Your task to perform on an android device: open app "Upside-Cash back on gas & food" Image 0: 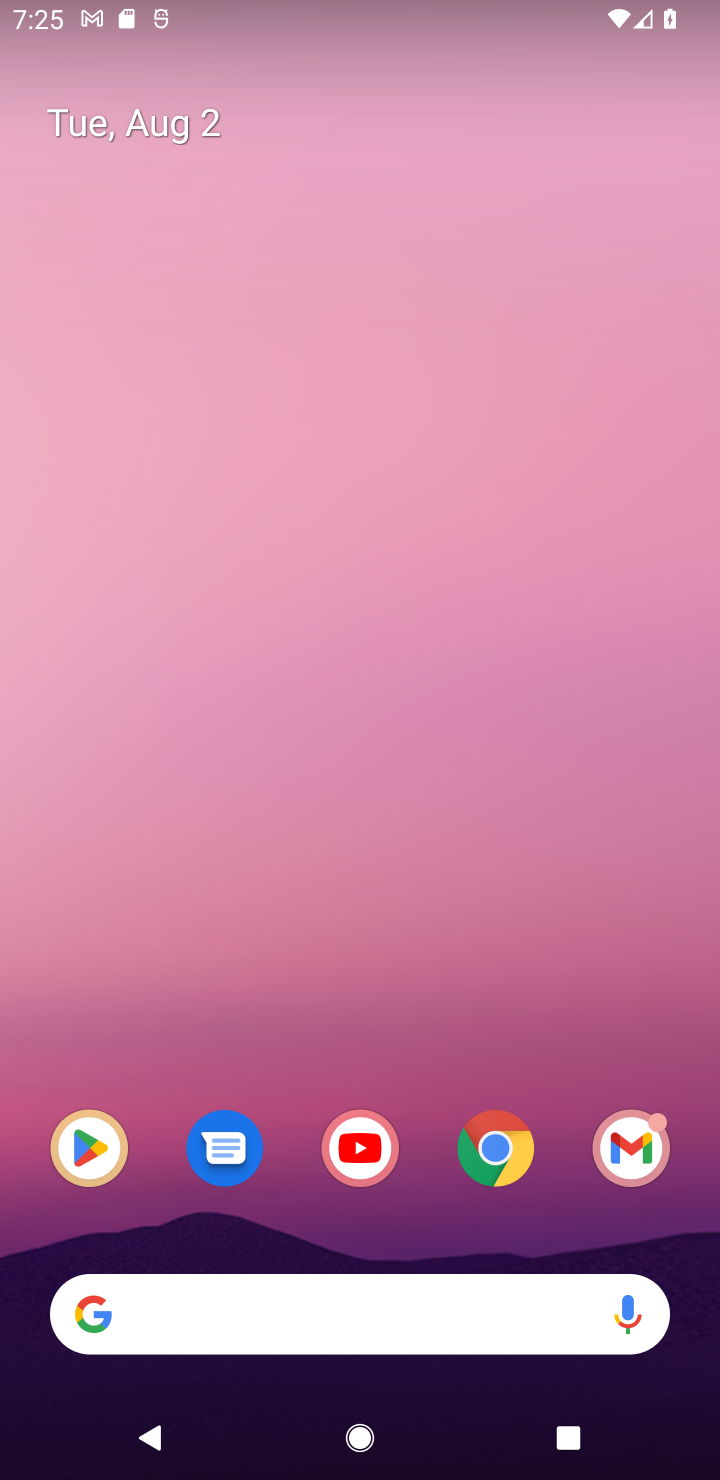
Step 0: drag from (552, 997) to (302, 305)
Your task to perform on an android device: open app "Upside-Cash back on gas & food" Image 1: 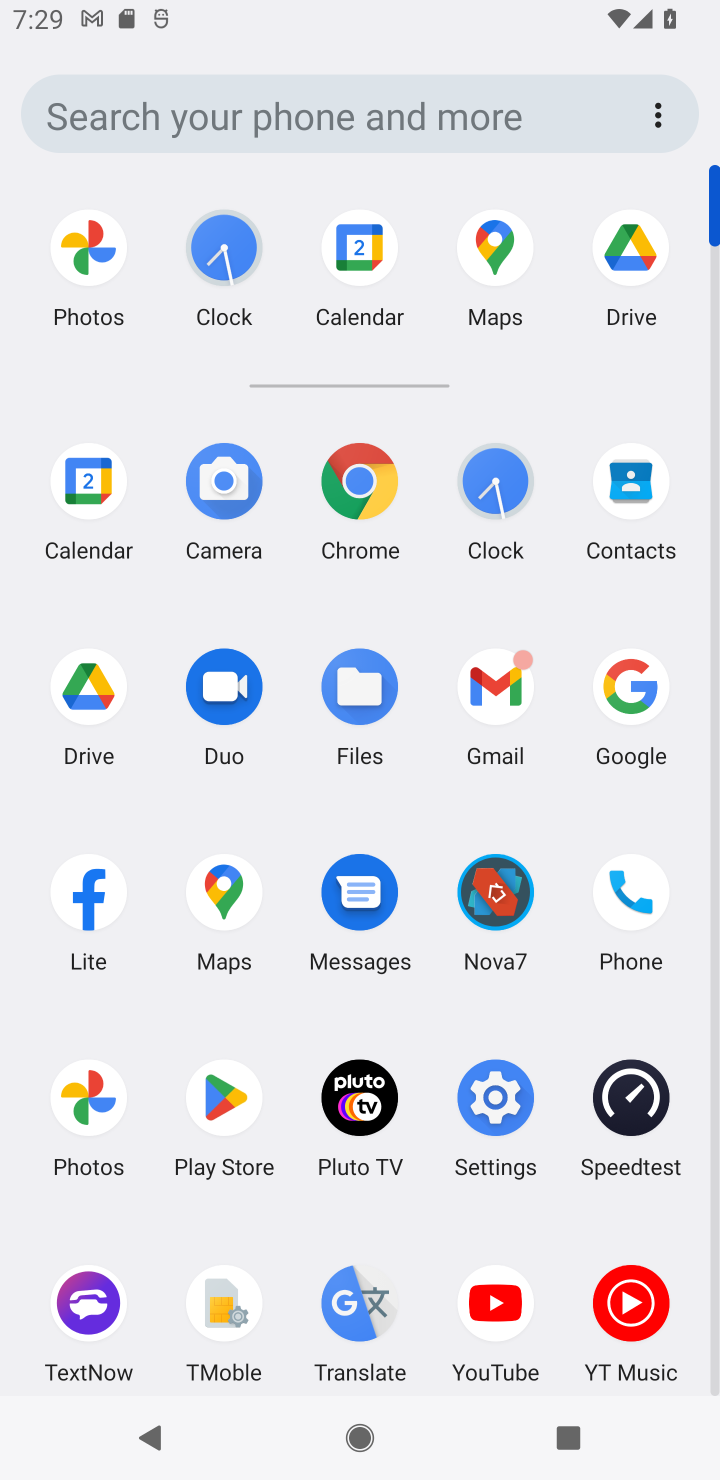
Step 1: click (210, 1119)
Your task to perform on an android device: open app "Upside-Cash back on gas & food" Image 2: 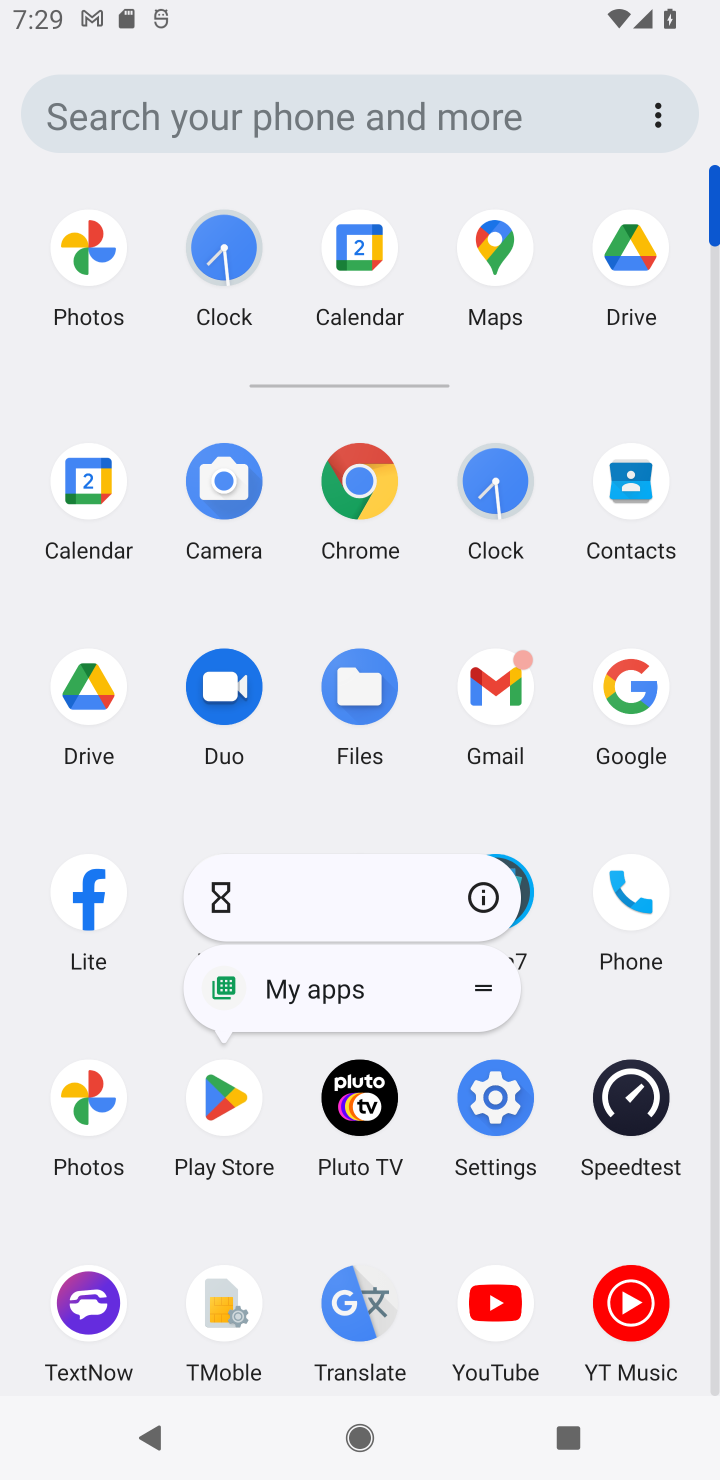
Step 2: click (222, 1088)
Your task to perform on an android device: open app "Upside-Cash back on gas & food" Image 3: 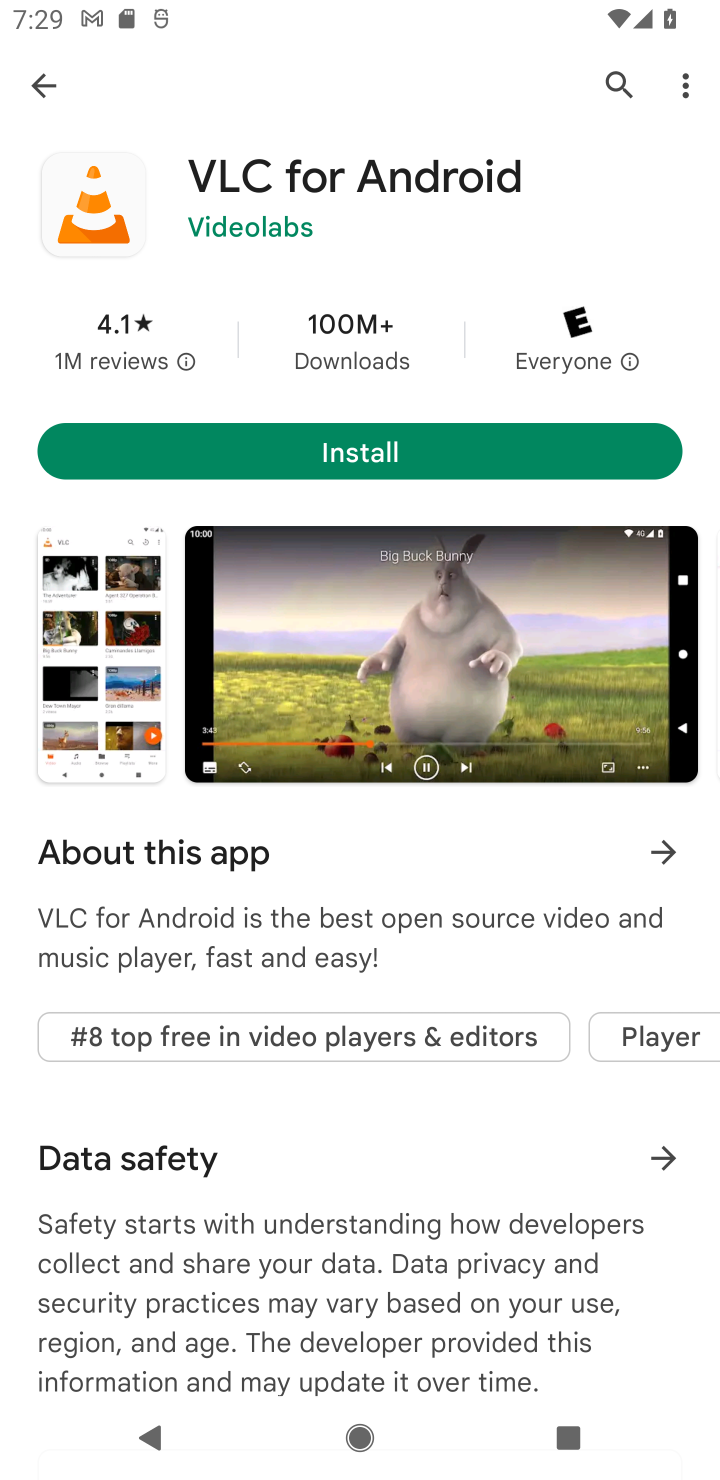
Step 3: press back button
Your task to perform on an android device: open app "Upside-Cash back on gas & food" Image 4: 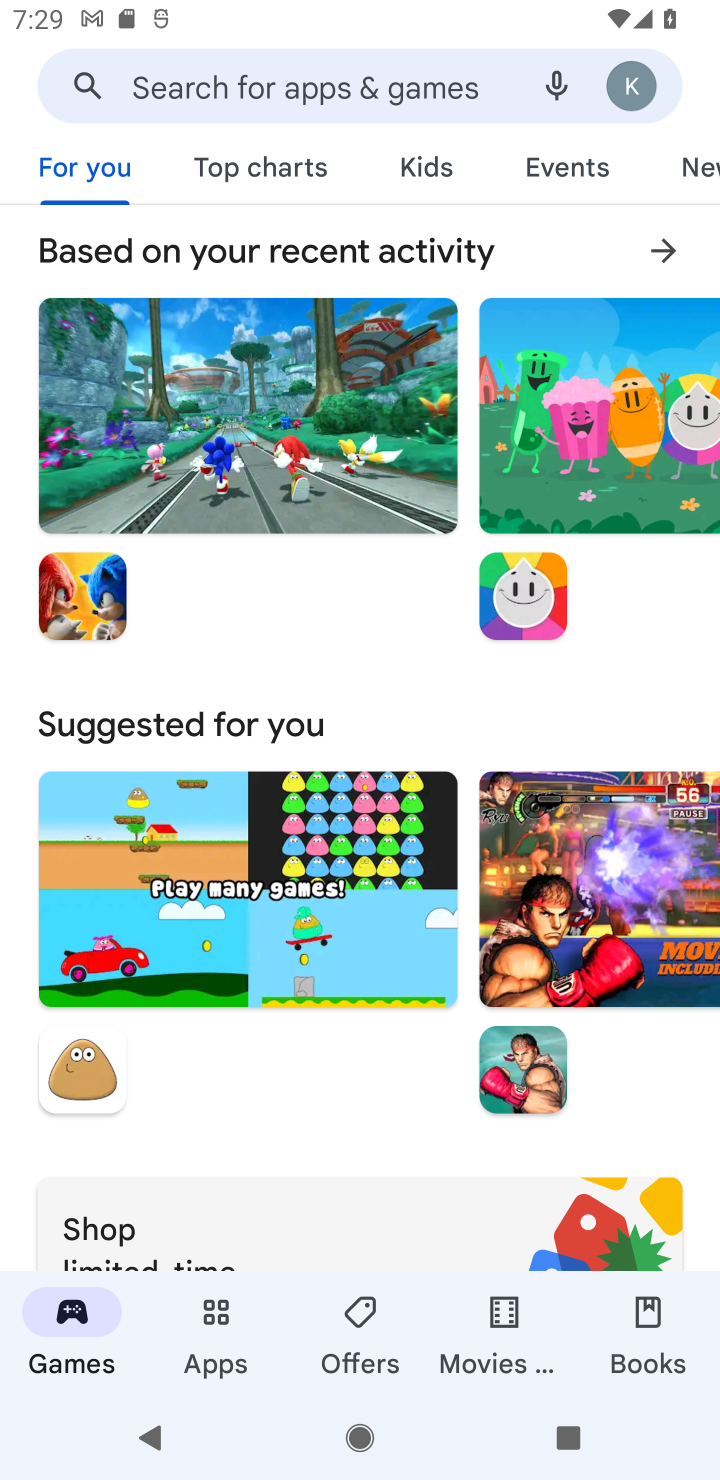
Step 4: click (201, 79)
Your task to perform on an android device: open app "Upside-Cash back on gas & food" Image 5: 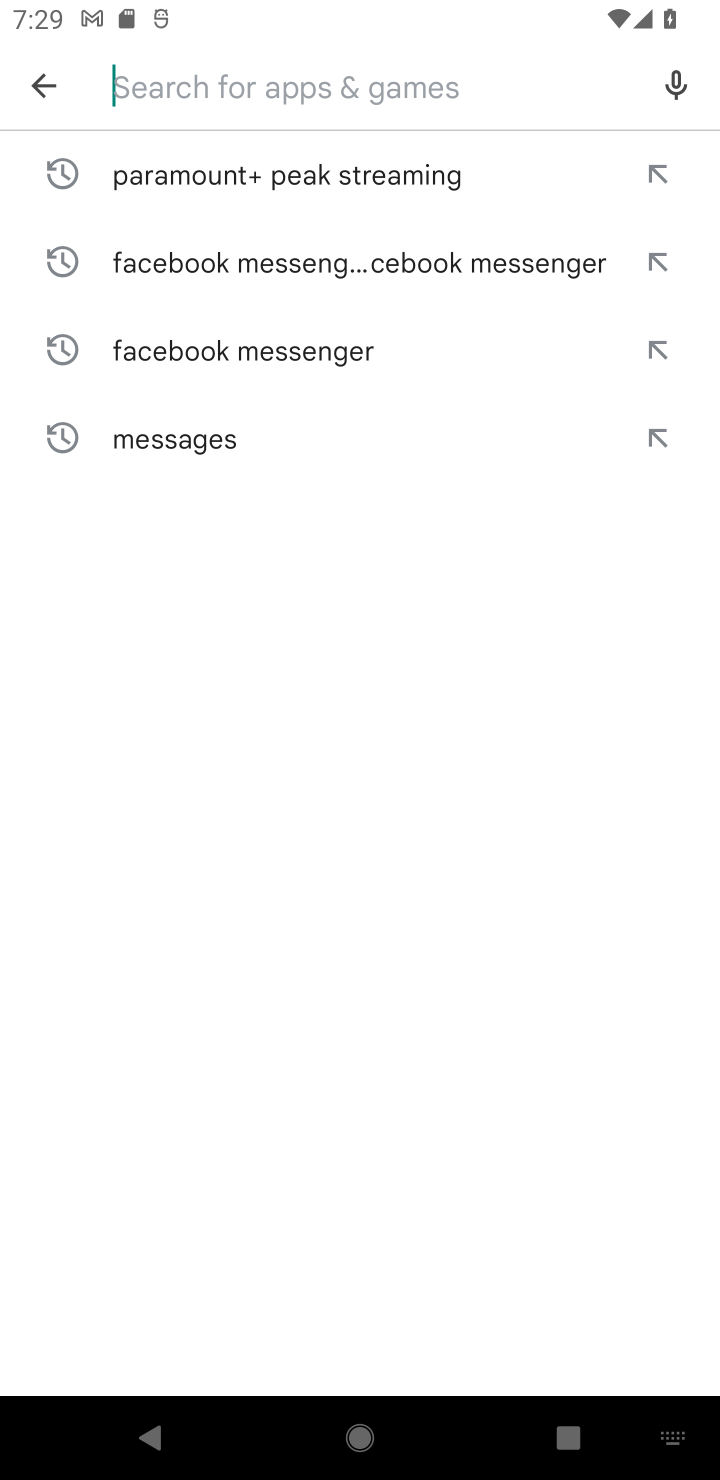
Step 5: type "Upside-Cash back on gas & food"
Your task to perform on an android device: open app "Upside-Cash back on gas & food" Image 6: 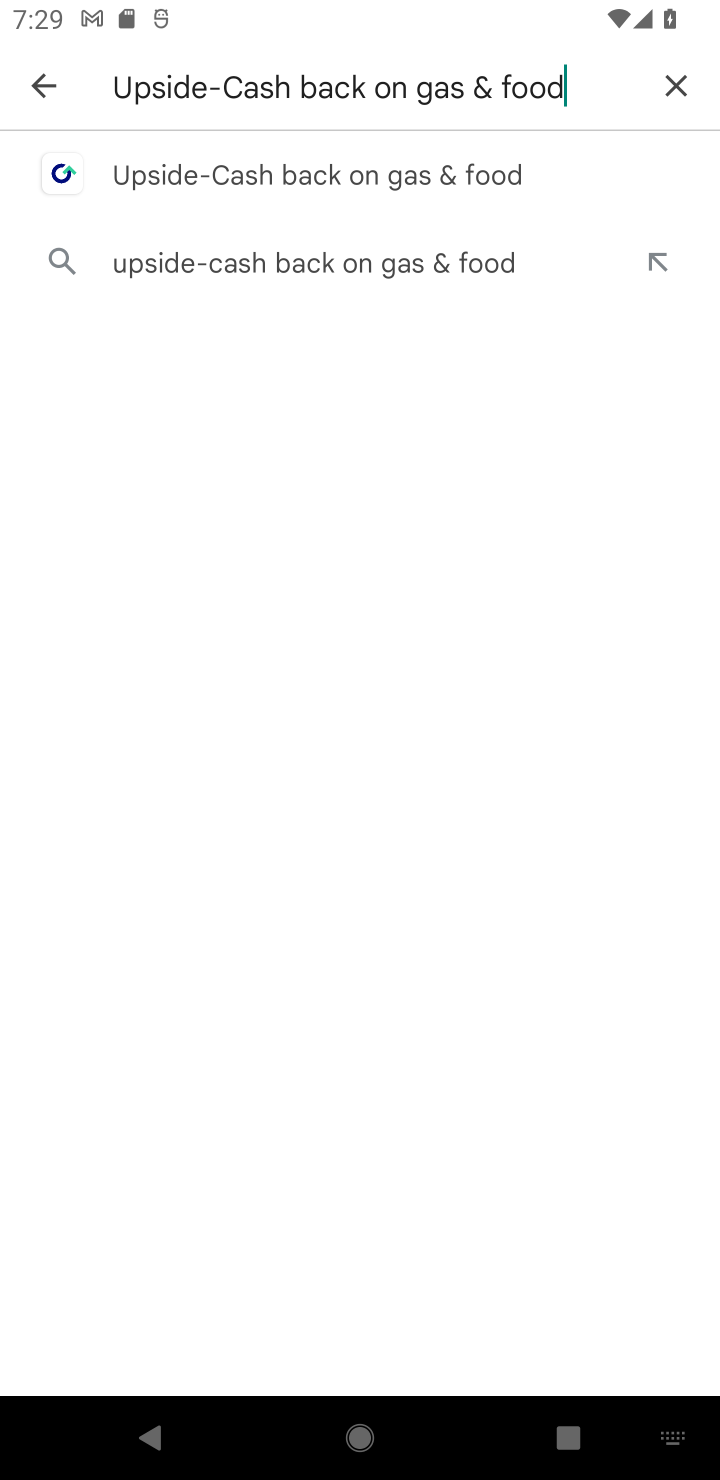
Step 6: click (220, 184)
Your task to perform on an android device: open app "Upside-Cash back on gas & food" Image 7: 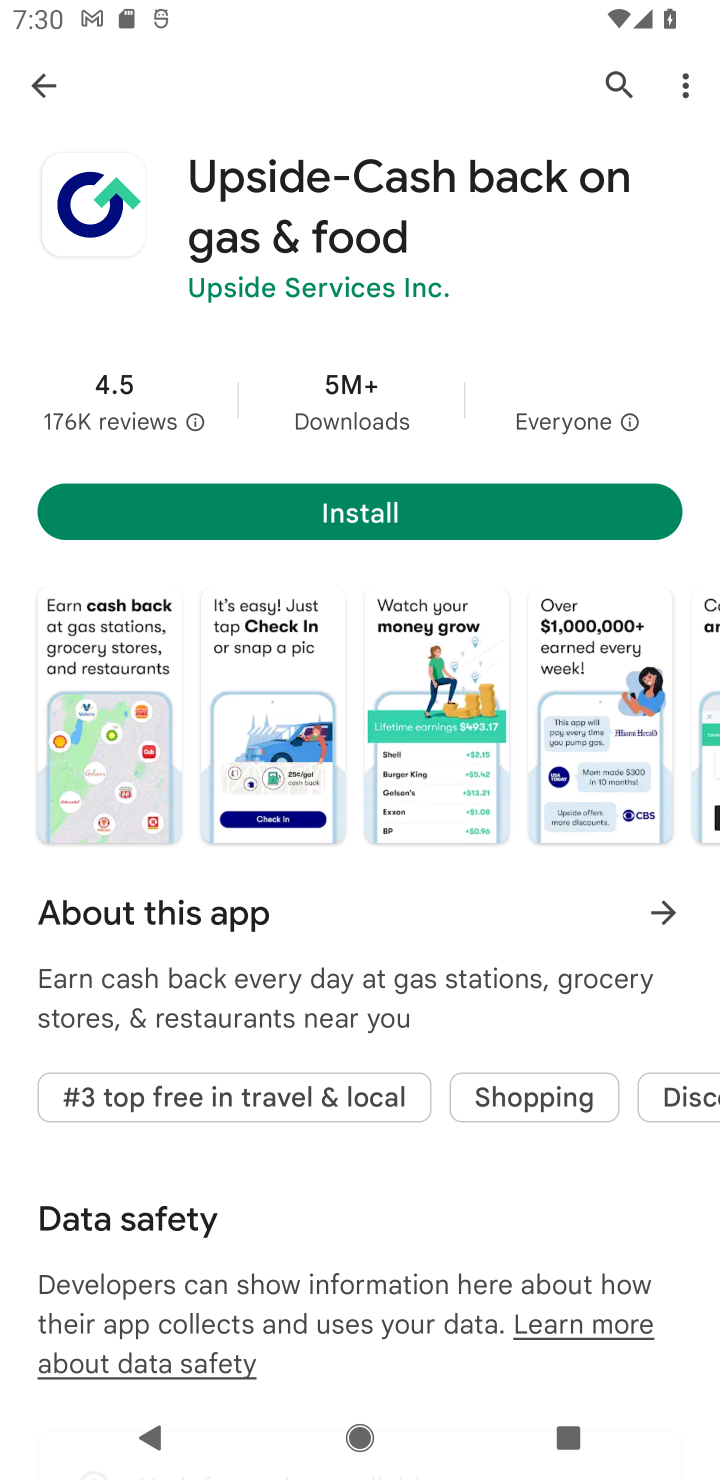
Step 7: task complete